Your task to perform on an android device: manage bookmarks in the chrome app Image 0: 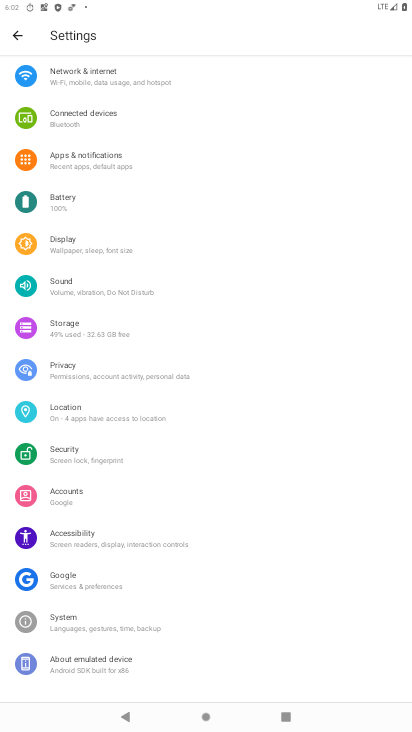
Step 0: press home button
Your task to perform on an android device: manage bookmarks in the chrome app Image 1: 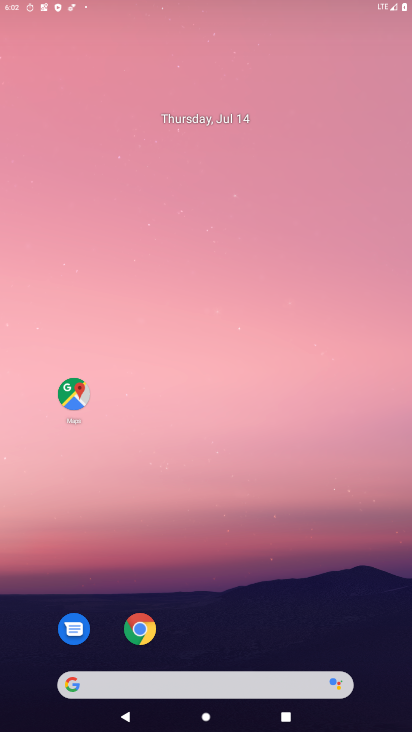
Step 1: drag from (252, 710) to (308, 9)
Your task to perform on an android device: manage bookmarks in the chrome app Image 2: 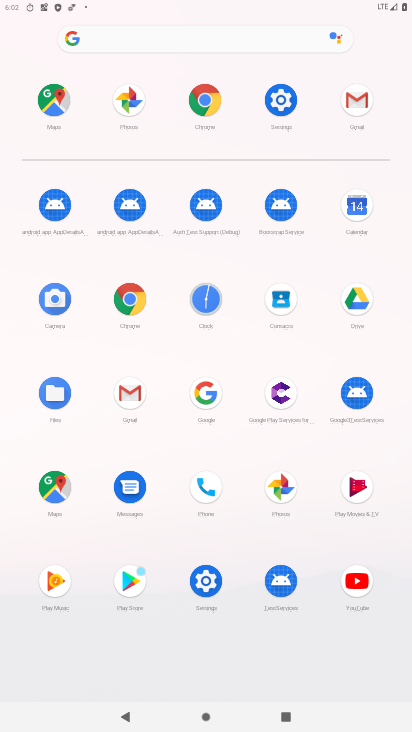
Step 2: click (127, 293)
Your task to perform on an android device: manage bookmarks in the chrome app Image 3: 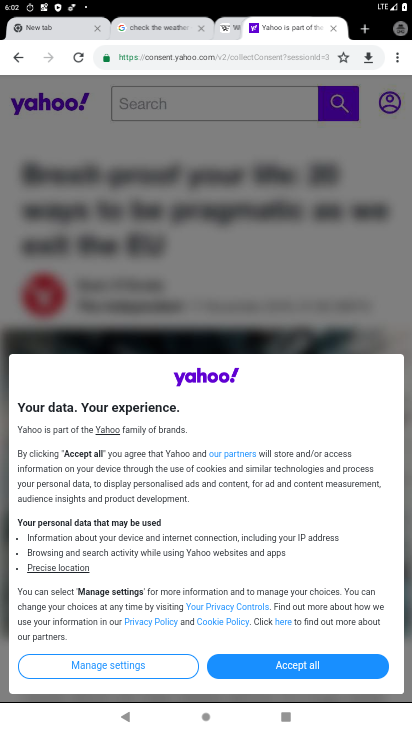
Step 3: drag from (397, 52) to (383, 228)
Your task to perform on an android device: manage bookmarks in the chrome app Image 4: 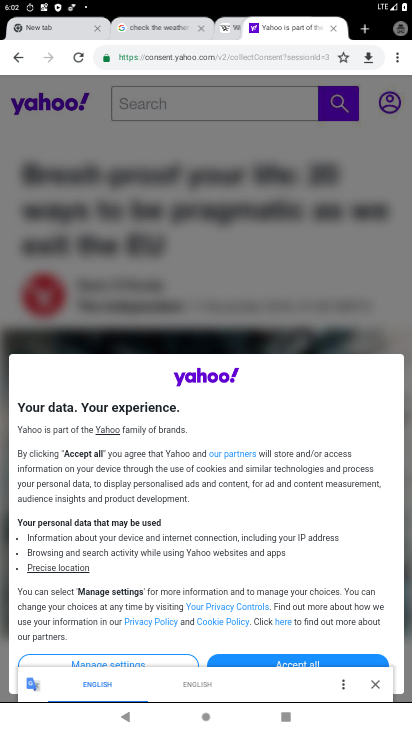
Step 4: click (395, 57)
Your task to perform on an android device: manage bookmarks in the chrome app Image 5: 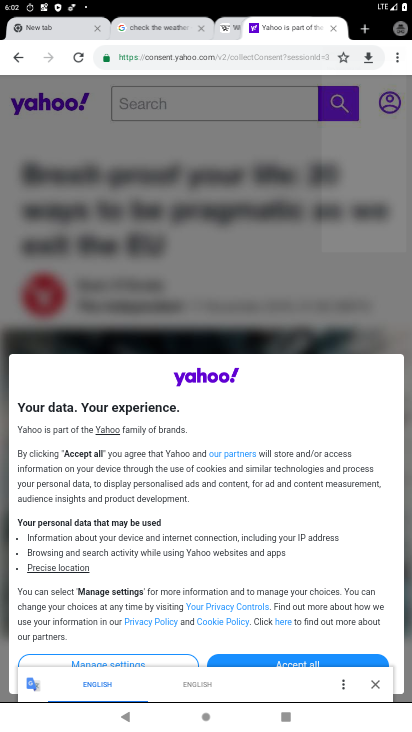
Step 5: click (323, 101)
Your task to perform on an android device: manage bookmarks in the chrome app Image 6: 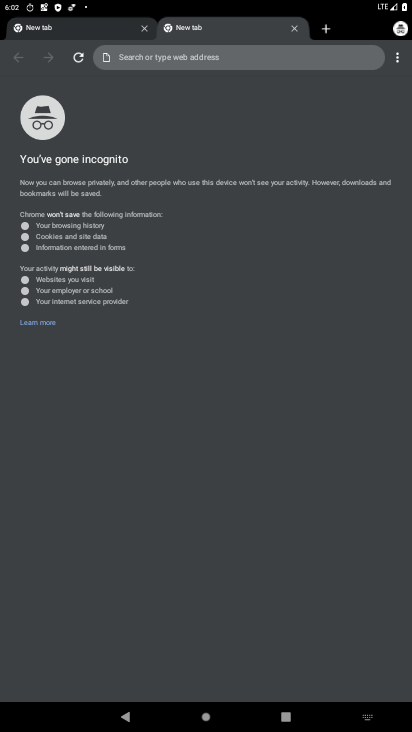
Step 6: task complete